Your task to perform on an android device: toggle sleep mode Image 0: 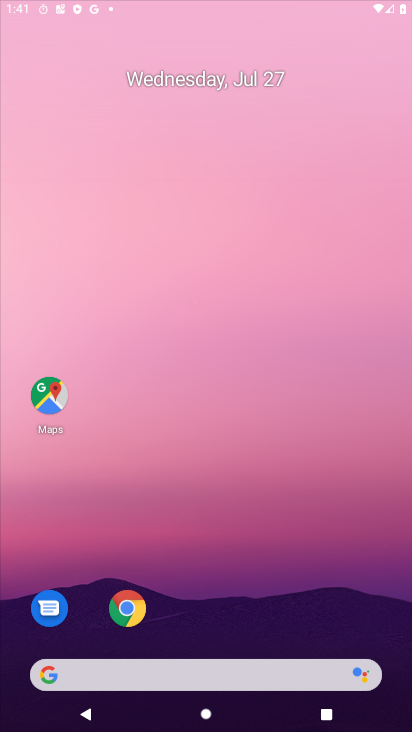
Step 0: click (129, 607)
Your task to perform on an android device: toggle sleep mode Image 1: 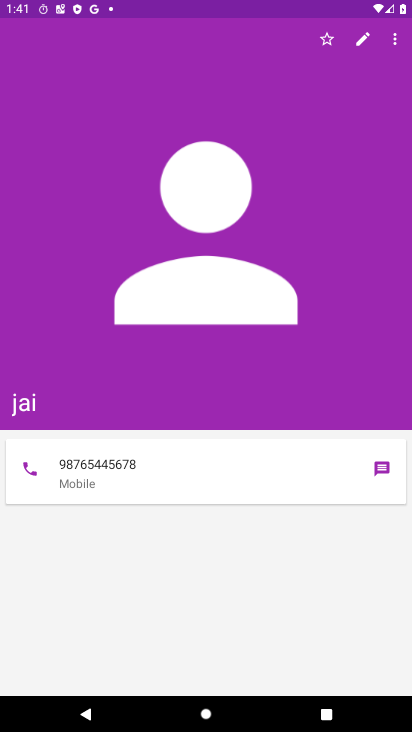
Step 1: task complete